Your task to perform on an android device: Open network settings Image 0: 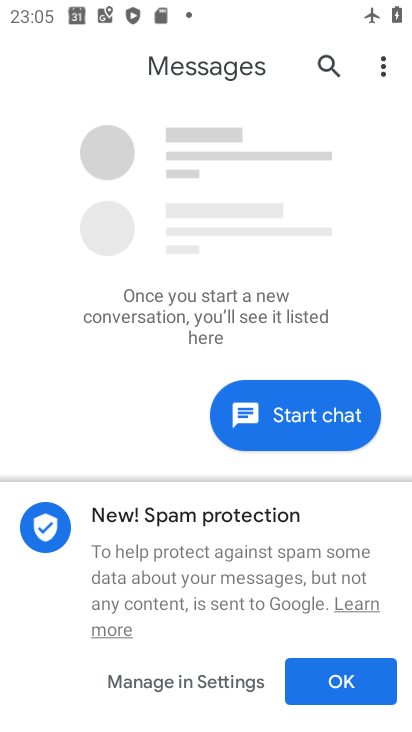
Step 0: press home button
Your task to perform on an android device: Open network settings Image 1: 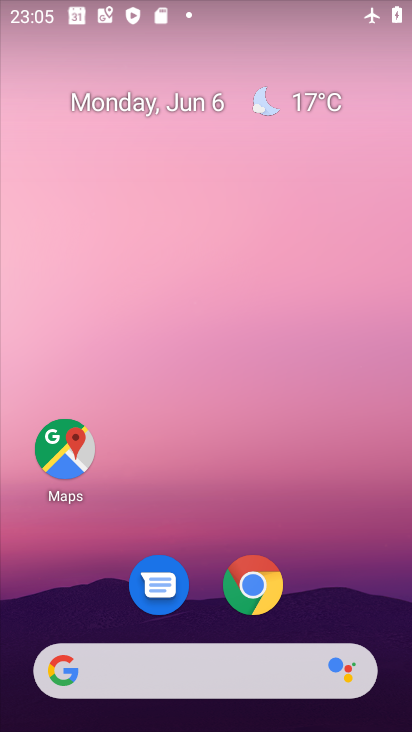
Step 1: drag from (241, 486) to (247, 3)
Your task to perform on an android device: Open network settings Image 2: 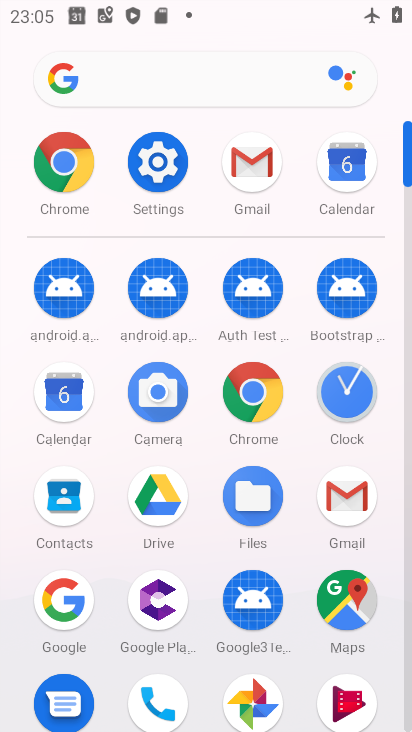
Step 2: click (160, 176)
Your task to perform on an android device: Open network settings Image 3: 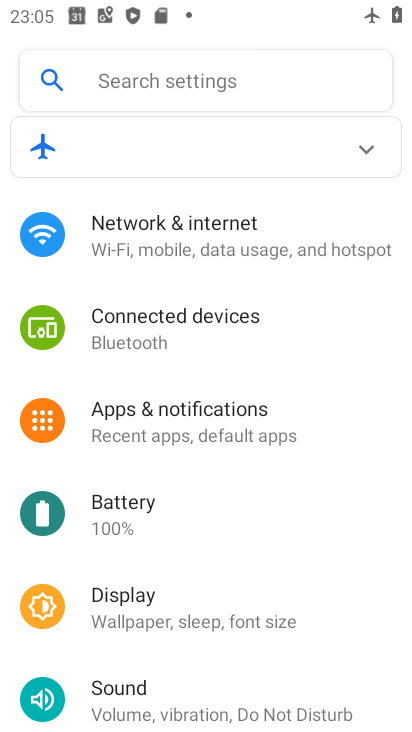
Step 3: click (192, 226)
Your task to perform on an android device: Open network settings Image 4: 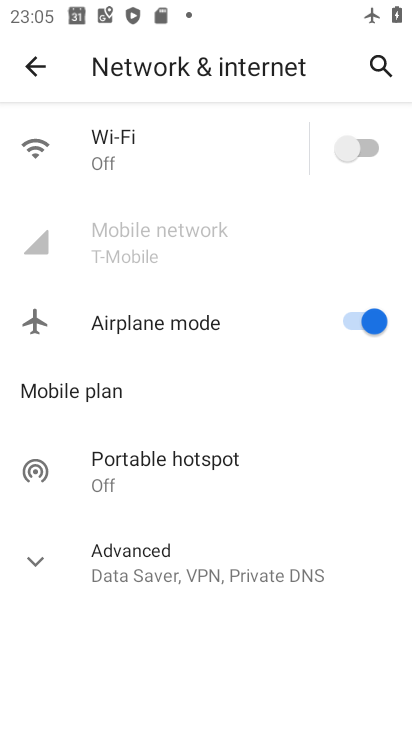
Step 4: task complete